Your task to perform on an android device: check storage Image 0: 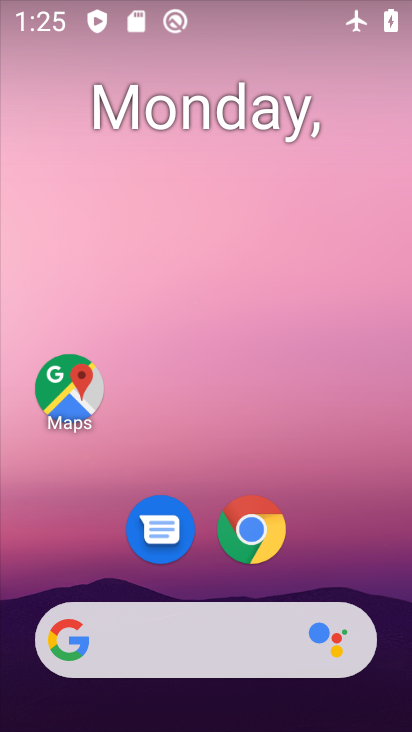
Step 0: drag from (338, 416) to (290, 3)
Your task to perform on an android device: check storage Image 1: 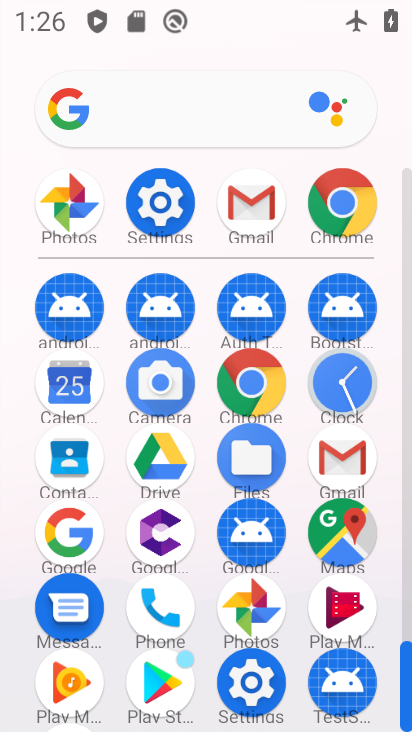
Step 1: click (156, 218)
Your task to perform on an android device: check storage Image 2: 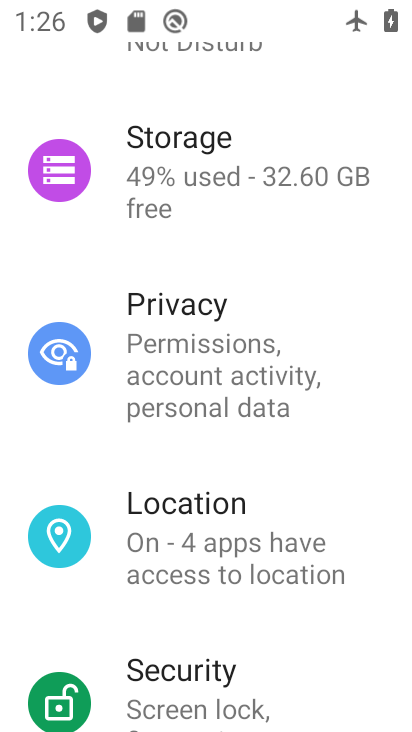
Step 2: click (272, 172)
Your task to perform on an android device: check storage Image 3: 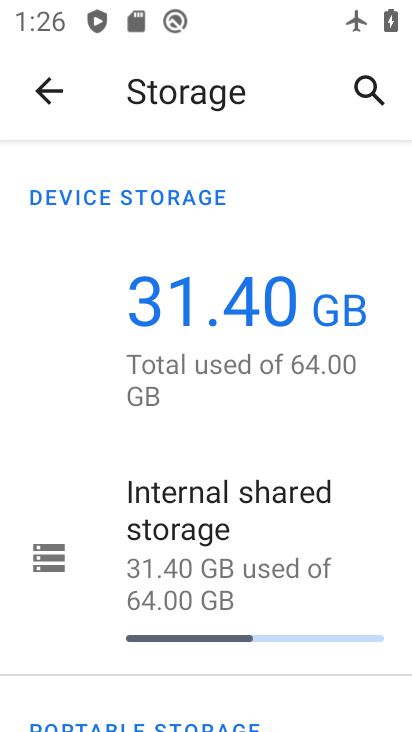
Step 3: drag from (226, 574) to (244, 201)
Your task to perform on an android device: check storage Image 4: 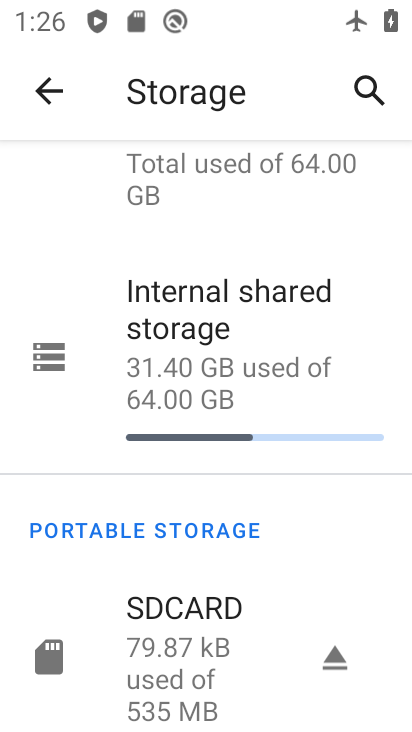
Step 4: click (268, 416)
Your task to perform on an android device: check storage Image 5: 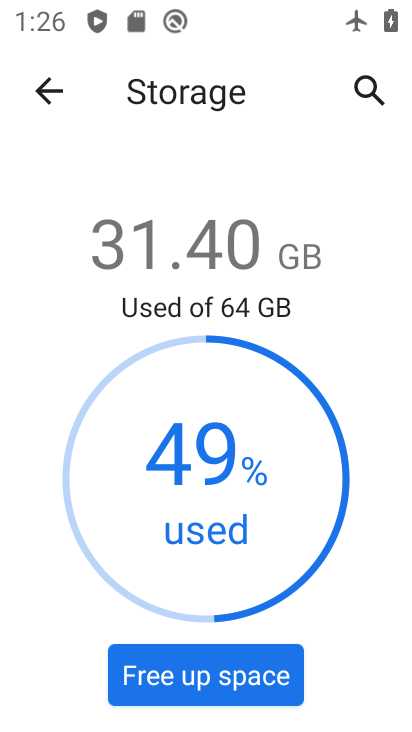
Step 5: task complete